Your task to perform on an android device: open chrome privacy settings Image 0: 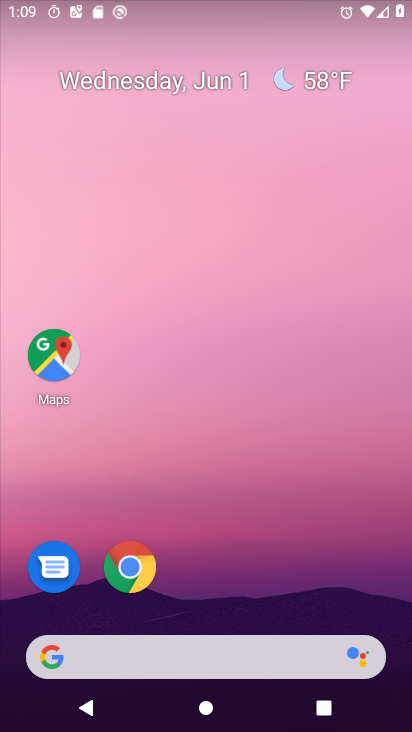
Step 0: click (135, 566)
Your task to perform on an android device: open chrome privacy settings Image 1: 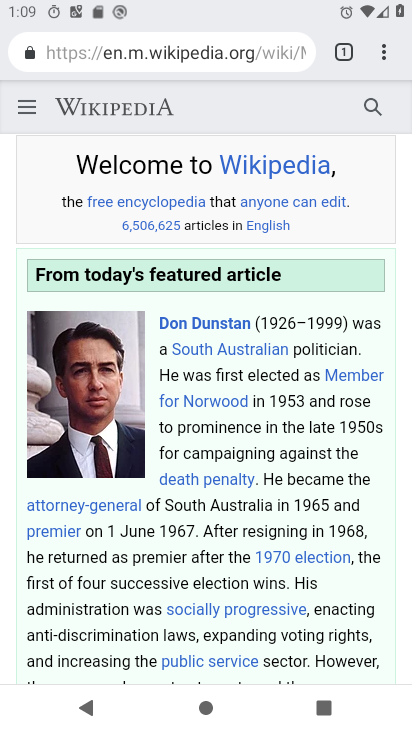
Step 1: click (382, 55)
Your task to perform on an android device: open chrome privacy settings Image 2: 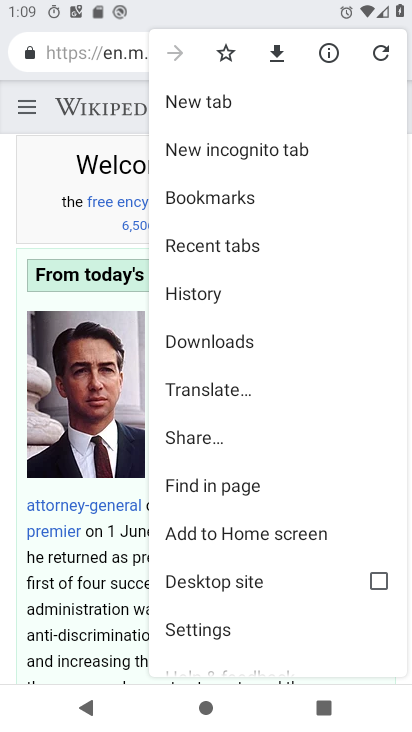
Step 2: click (216, 625)
Your task to perform on an android device: open chrome privacy settings Image 3: 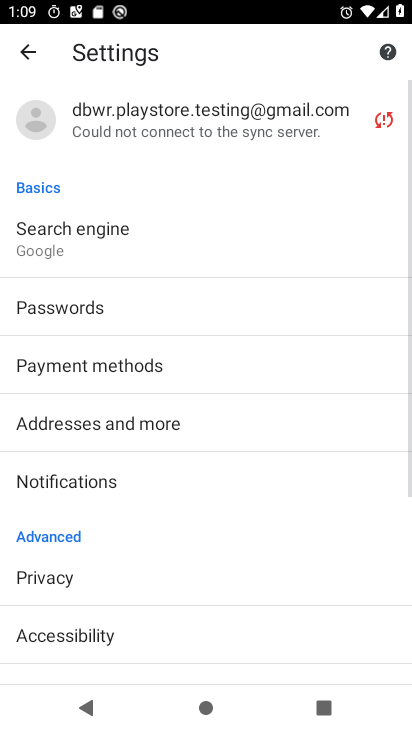
Step 3: click (82, 579)
Your task to perform on an android device: open chrome privacy settings Image 4: 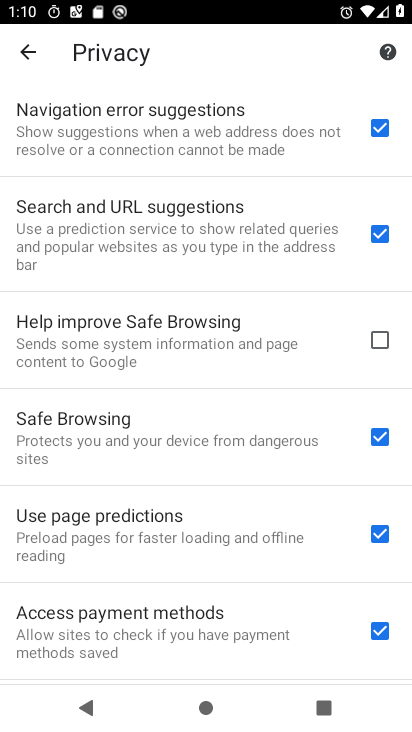
Step 4: task complete